Your task to perform on an android device: Go to Yahoo.com Image 0: 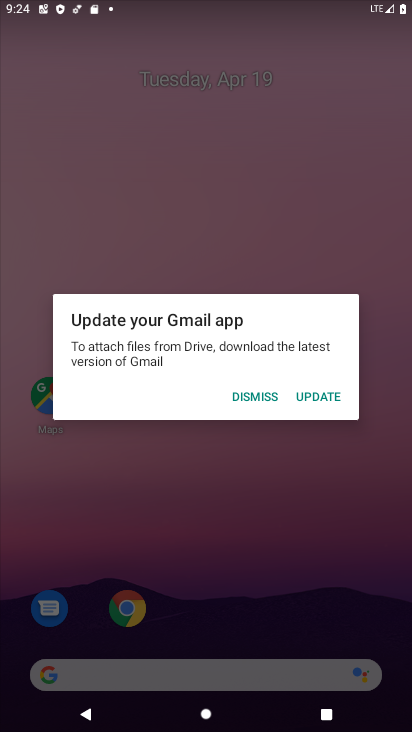
Step 0: press home button
Your task to perform on an android device: Go to Yahoo.com Image 1: 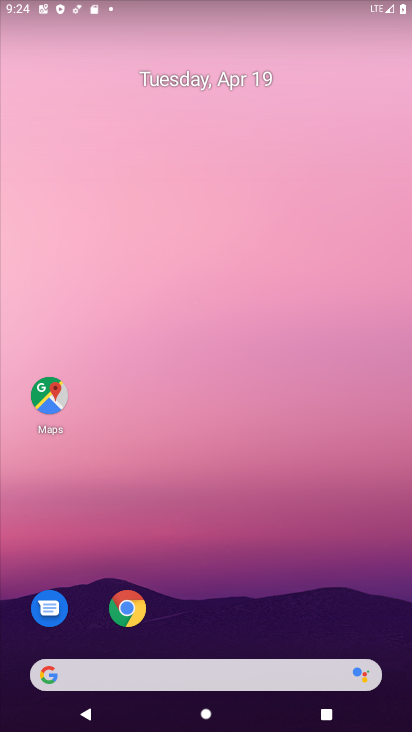
Step 1: click (125, 605)
Your task to perform on an android device: Go to Yahoo.com Image 2: 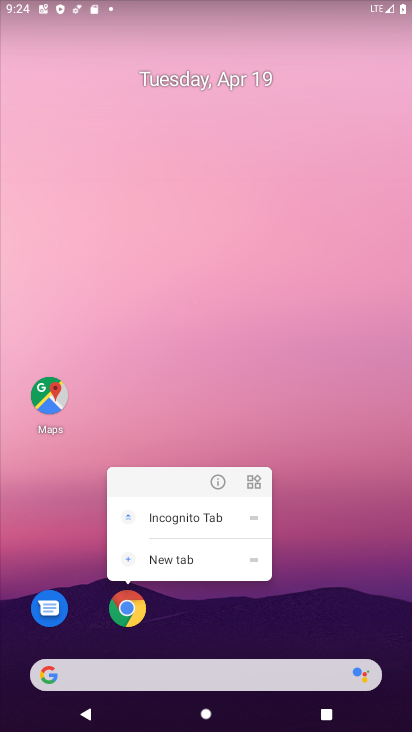
Step 2: click (127, 611)
Your task to perform on an android device: Go to Yahoo.com Image 3: 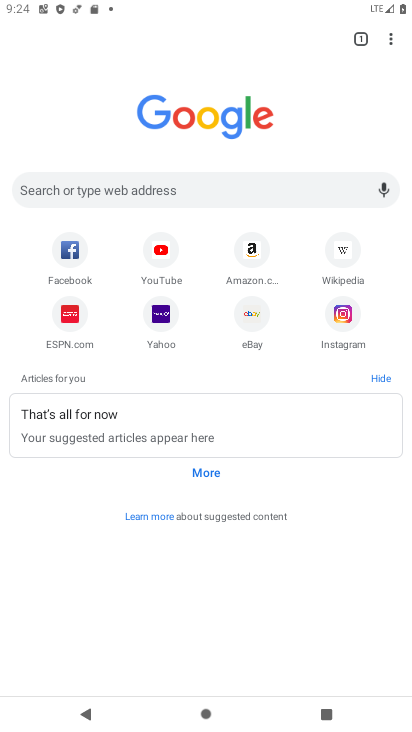
Step 3: click (96, 186)
Your task to perform on an android device: Go to Yahoo.com Image 4: 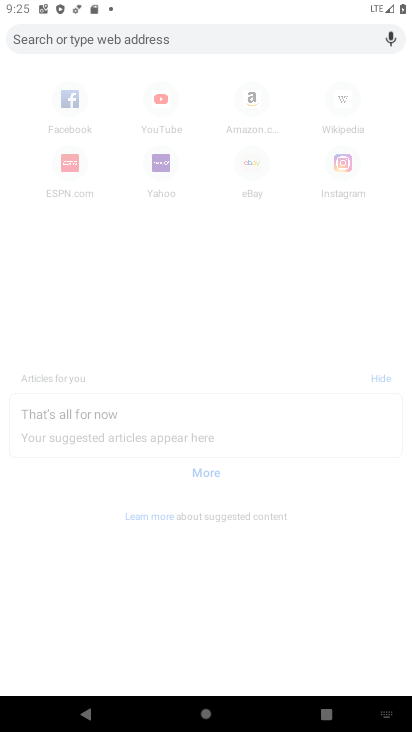
Step 4: type "yahoo.com"
Your task to perform on an android device: Go to Yahoo.com Image 5: 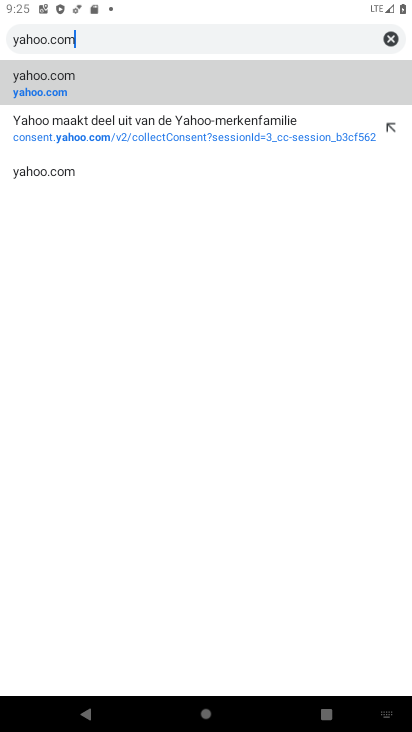
Step 5: click (36, 87)
Your task to perform on an android device: Go to Yahoo.com Image 6: 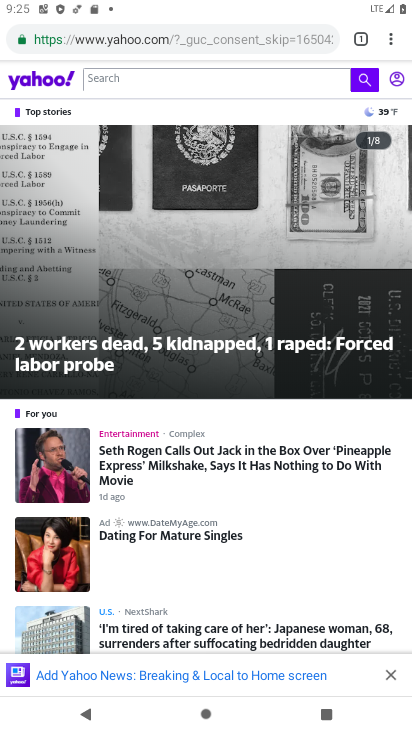
Step 6: task complete